Your task to perform on an android device: turn on wifi Image 0: 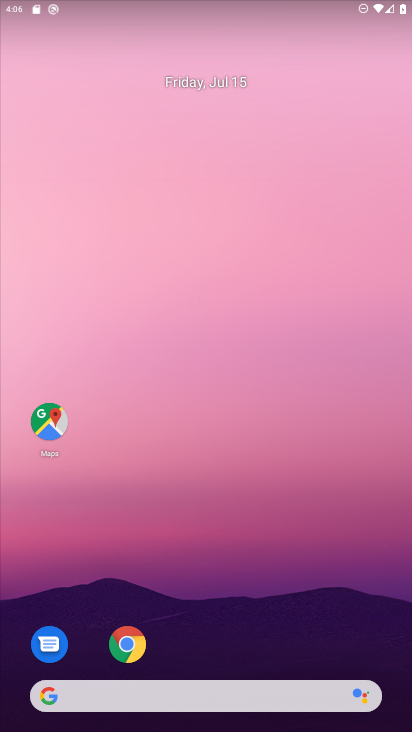
Step 0: drag from (178, 1) to (169, 461)
Your task to perform on an android device: turn on wifi Image 1: 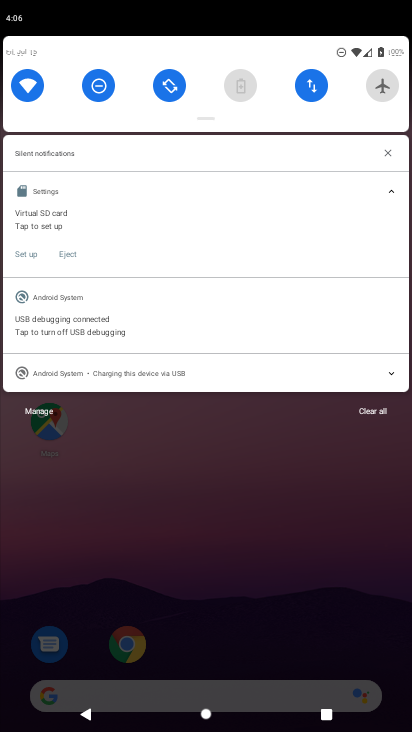
Step 1: click (21, 77)
Your task to perform on an android device: turn on wifi Image 2: 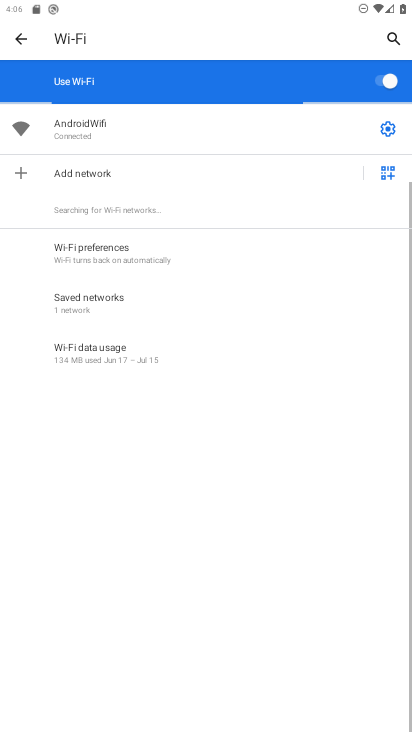
Step 2: task complete